Your task to perform on an android device: Play the last video I watched on Youtube Image 0: 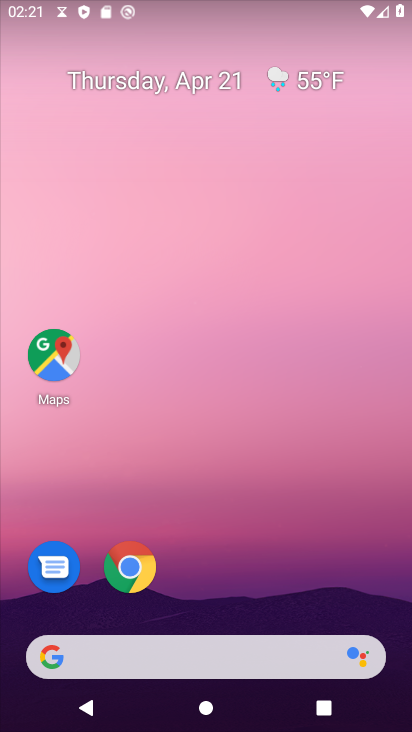
Step 0: drag from (201, 562) to (311, 54)
Your task to perform on an android device: Play the last video I watched on Youtube Image 1: 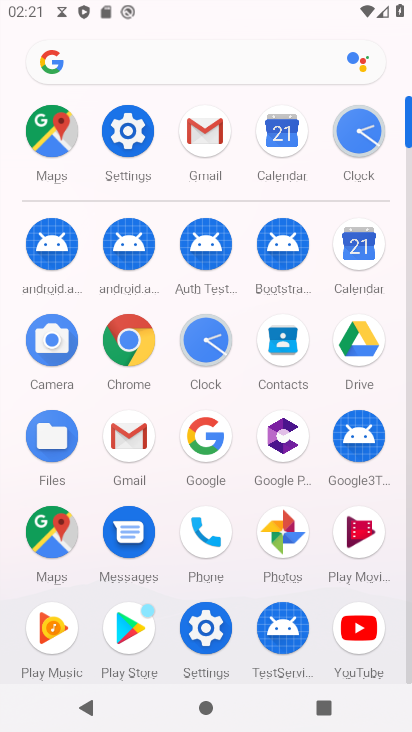
Step 1: click (372, 632)
Your task to perform on an android device: Play the last video I watched on Youtube Image 2: 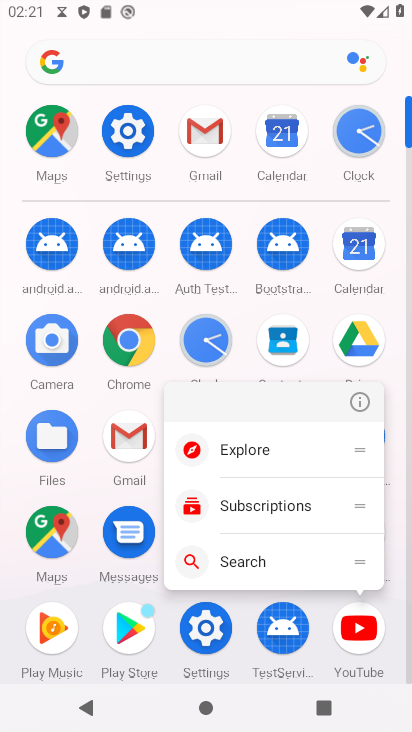
Step 2: click (358, 624)
Your task to perform on an android device: Play the last video I watched on Youtube Image 3: 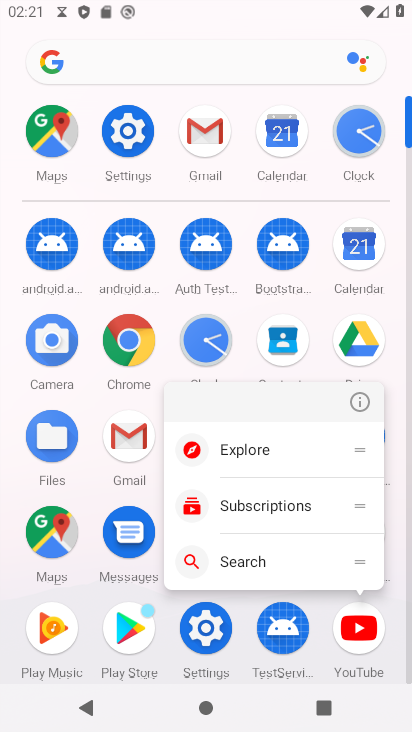
Step 3: click (357, 634)
Your task to perform on an android device: Play the last video I watched on Youtube Image 4: 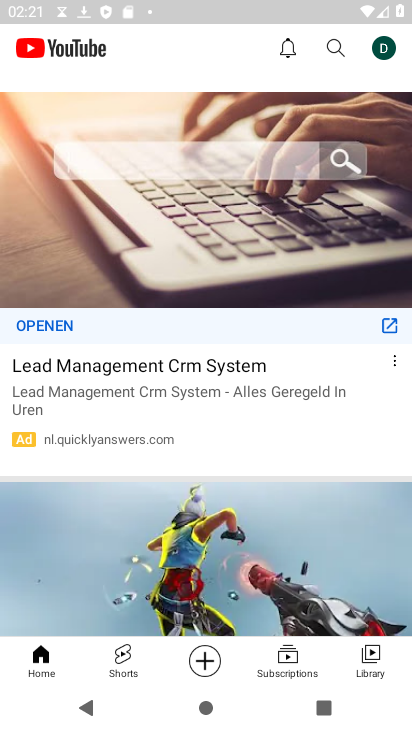
Step 4: click (369, 667)
Your task to perform on an android device: Play the last video I watched on Youtube Image 5: 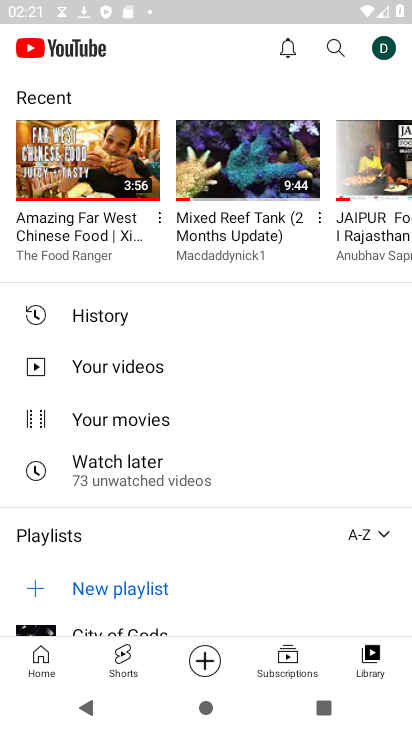
Step 5: click (85, 315)
Your task to perform on an android device: Play the last video I watched on Youtube Image 6: 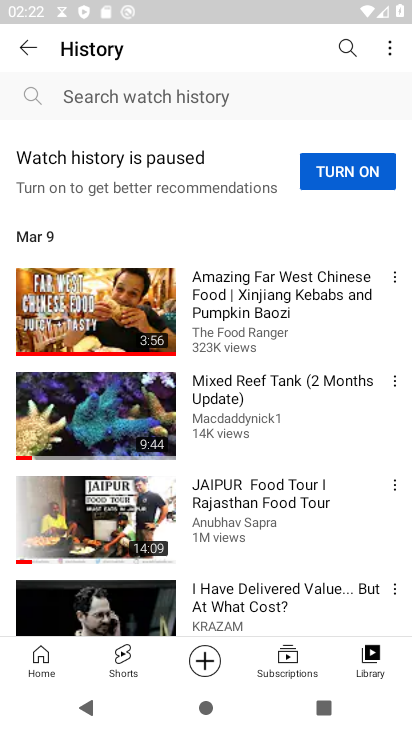
Step 6: click (106, 307)
Your task to perform on an android device: Play the last video I watched on Youtube Image 7: 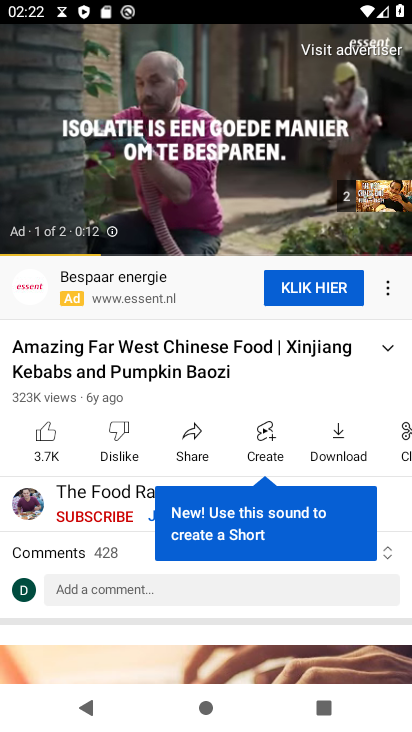
Step 7: task complete